Your task to perform on an android device: Go to Google maps Image 0: 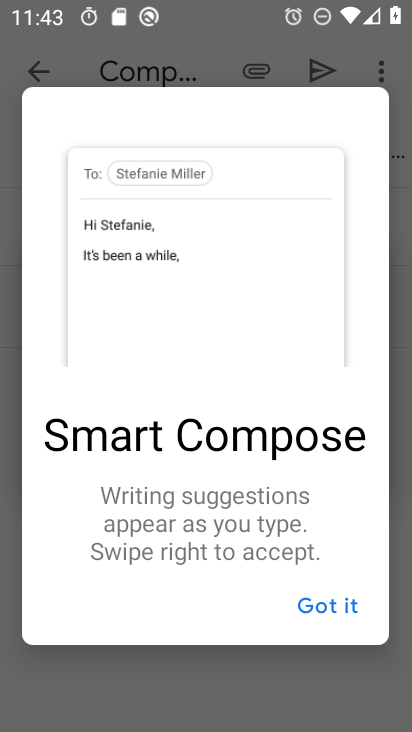
Step 0: press home button
Your task to perform on an android device: Go to Google maps Image 1: 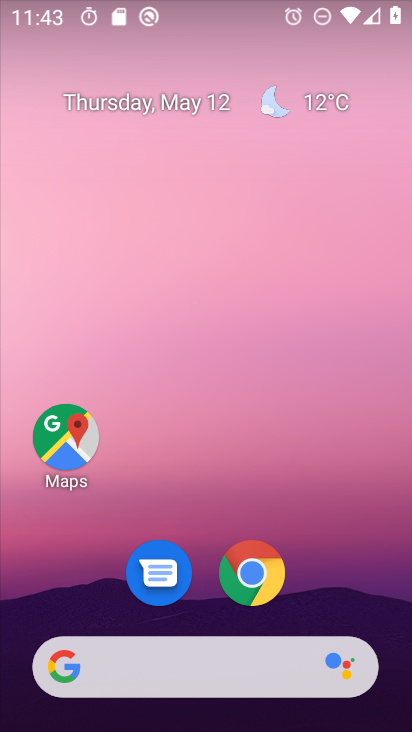
Step 1: click (65, 454)
Your task to perform on an android device: Go to Google maps Image 2: 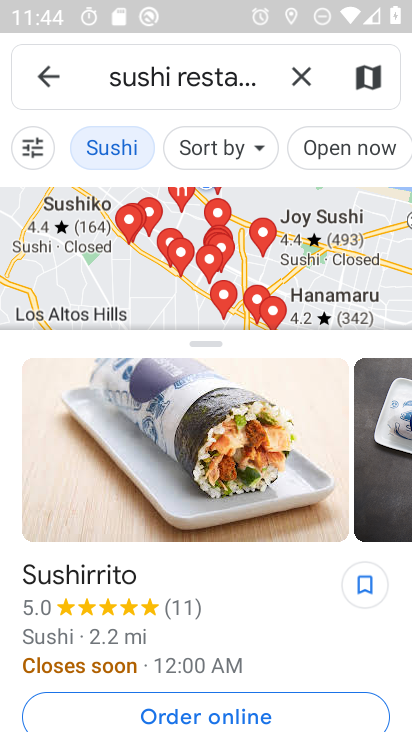
Step 2: task complete